Your task to perform on an android device: turn on data saver in the chrome app Image 0: 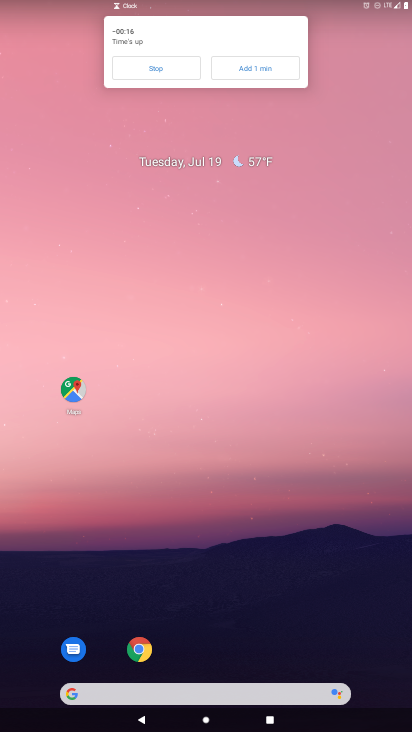
Step 0: click (145, 651)
Your task to perform on an android device: turn on data saver in the chrome app Image 1: 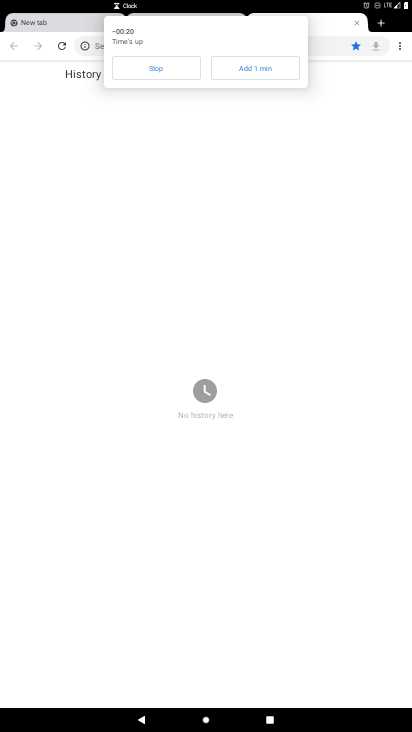
Step 1: click (155, 73)
Your task to perform on an android device: turn on data saver in the chrome app Image 2: 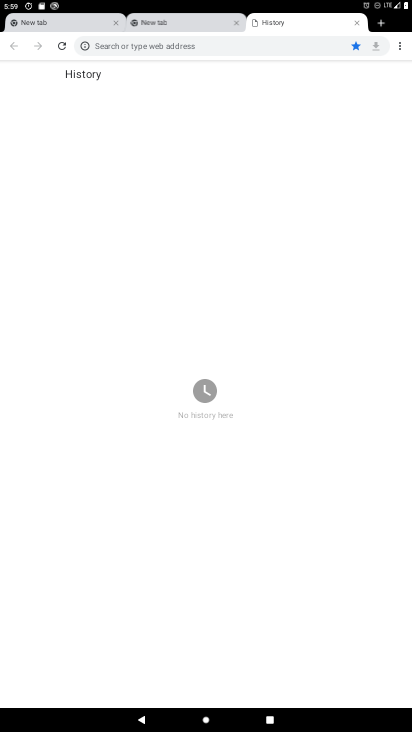
Step 2: click (397, 42)
Your task to perform on an android device: turn on data saver in the chrome app Image 3: 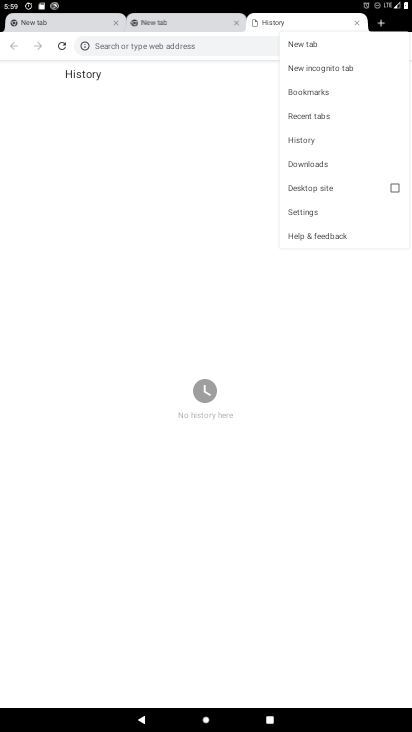
Step 3: click (302, 208)
Your task to perform on an android device: turn on data saver in the chrome app Image 4: 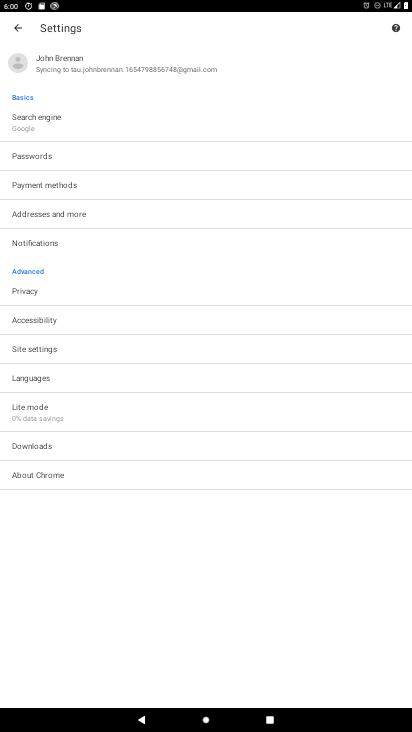
Step 4: click (26, 408)
Your task to perform on an android device: turn on data saver in the chrome app Image 5: 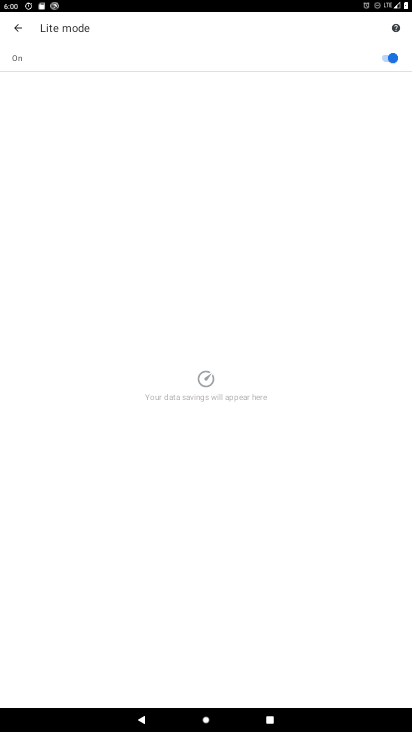
Step 5: task complete